Your task to perform on an android device: turn smart compose on in the gmail app Image 0: 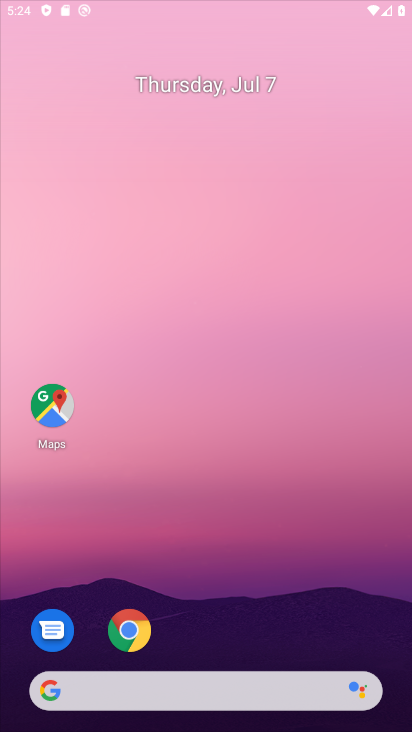
Step 0: press home button
Your task to perform on an android device: turn smart compose on in the gmail app Image 1: 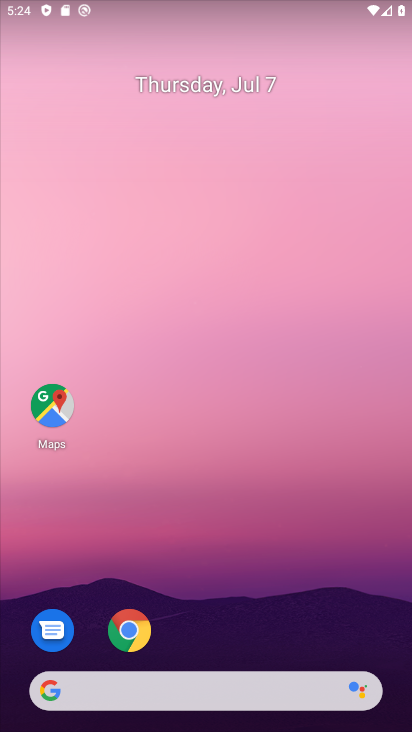
Step 1: drag from (248, 634) to (271, 94)
Your task to perform on an android device: turn smart compose on in the gmail app Image 2: 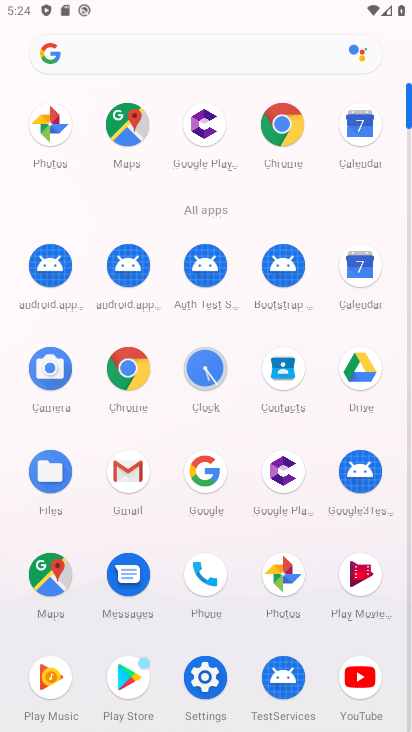
Step 2: click (131, 475)
Your task to perform on an android device: turn smart compose on in the gmail app Image 3: 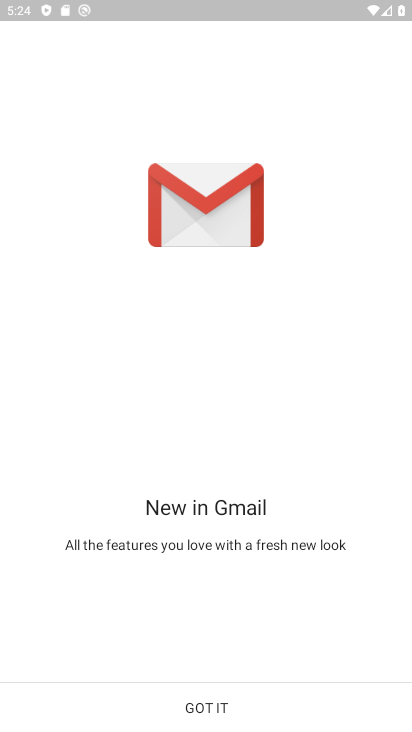
Step 3: click (228, 702)
Your task to perform on an android device: turn smart compose on in the gmail app Image 4: 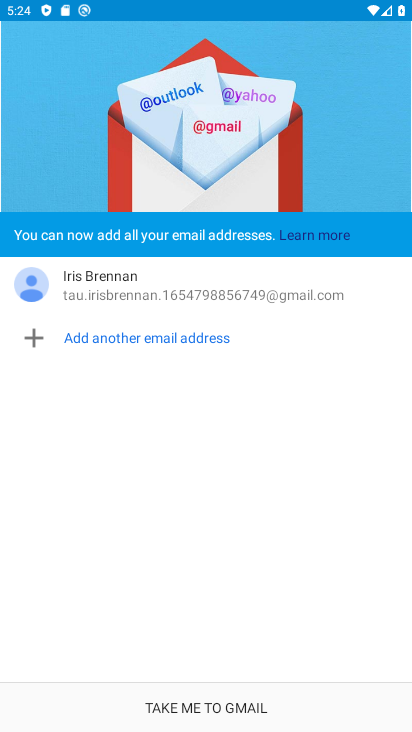
Step 4: click (245, 710)
Your task to perform on an android device: turn smart compose on in the gmail app Image 5: 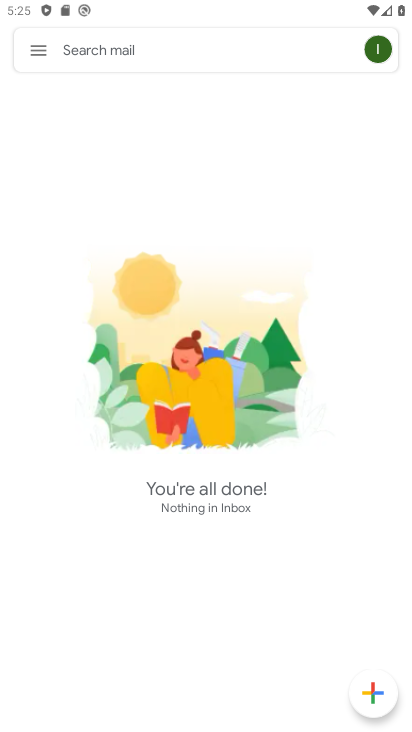
Step 5: click (33, 61)
Your task to perform on an android device: turn smart compose on in the gmail app Image 6: 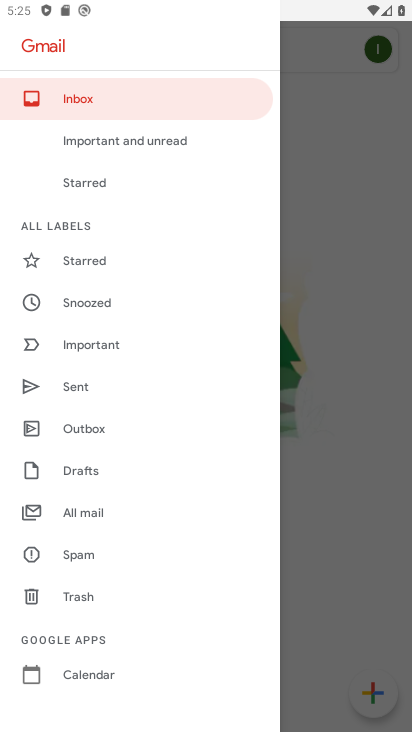
Step 6: drag from (185, 645) to (197, 196)
Your task to perform on an android device: turn smart compose on in the gmail app Image 7: 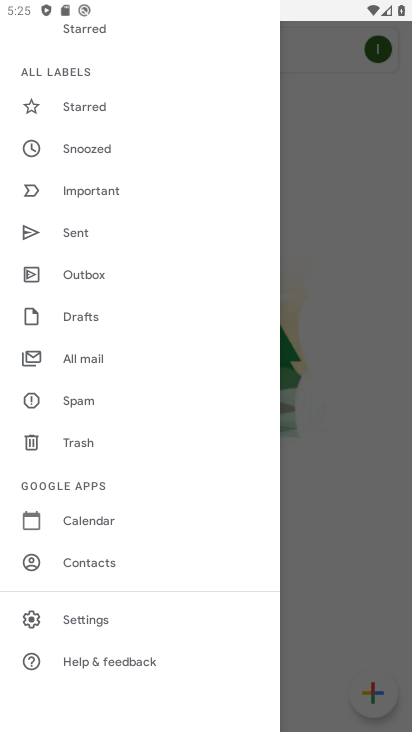
Step 7: click (83, 618)
Your task to perform on an android device: turn smart compose on in the gmail app Image 8: 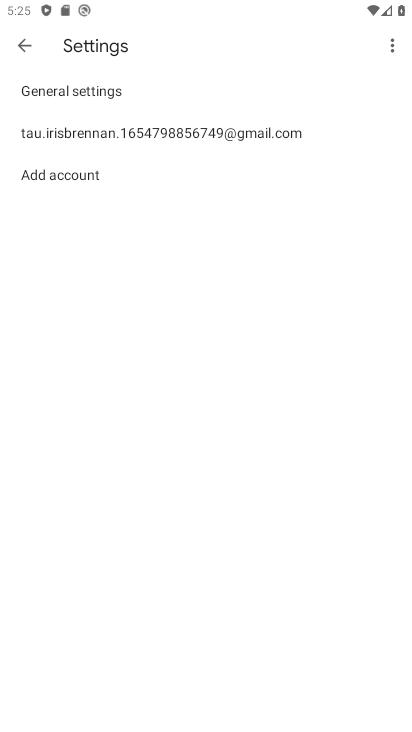
Step 8: click (98, 135)
Your task to perform on an android device: turn smart compose on in the gmail app Image 9: 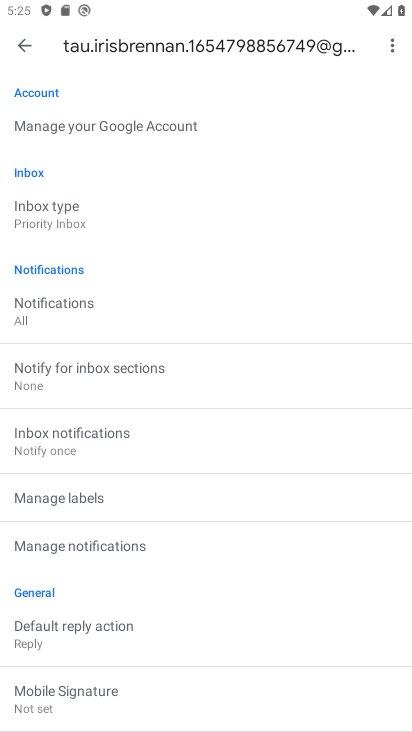
Step 9: task complete